Your task to perform on an android device: change notifications settings Image 0: 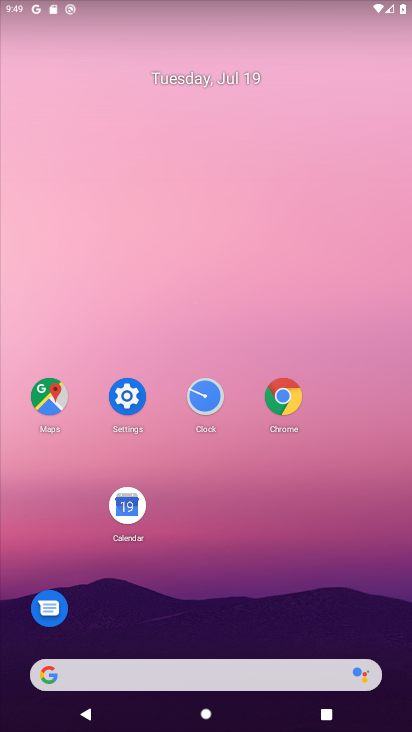
Step 0: click (134, 392)
Your task to perform on an android device: change notifications settings Image 1: 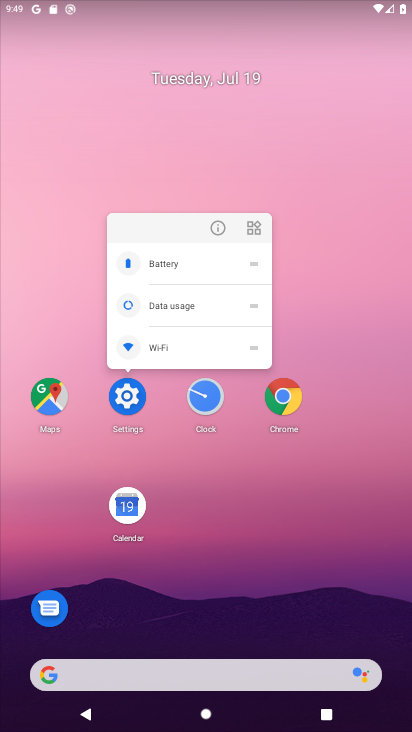
Step 1: click (134, 392)
Your task to perform on an android device: change notifications settings Image 2: 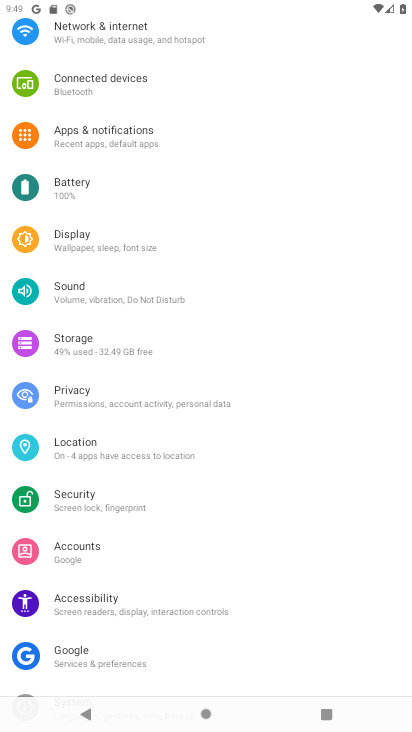
Step 2: click (110, 122)
Your task to perform on an android device: change notifications settings Image 3: 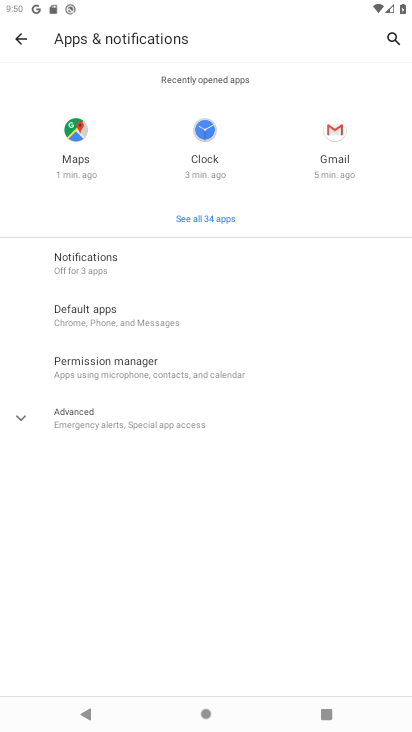
Step 3: click (87, 260)
Your task to perform on an android device: change notifications settings Image 4: 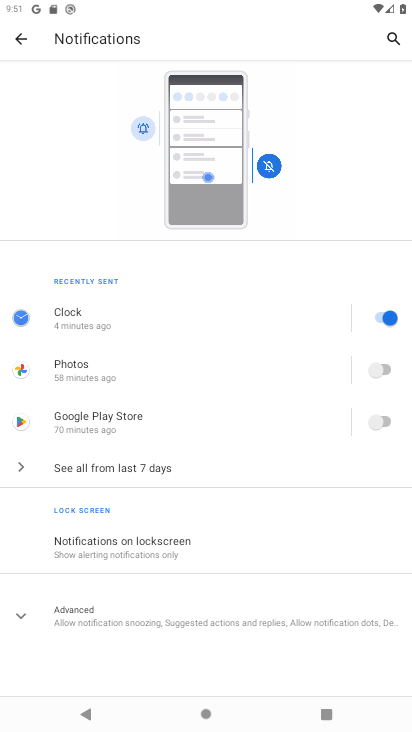
Step 4: click (17, 619)
Your task to perform on an android device: change notifications settings Image 5: 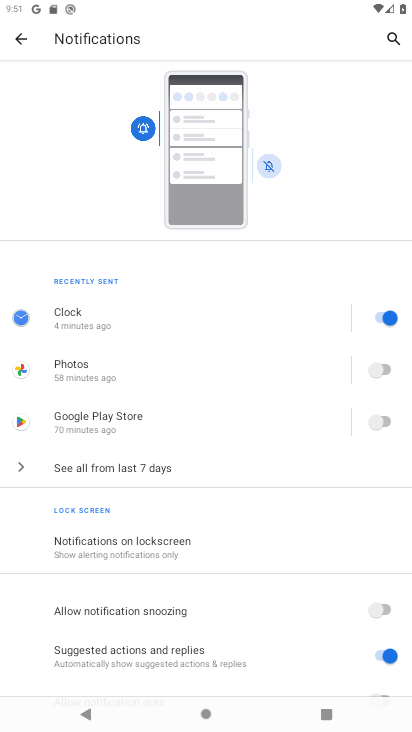
Step 5: task complete